Your task to perform on an android device: Is it going to rain today? Image 0: 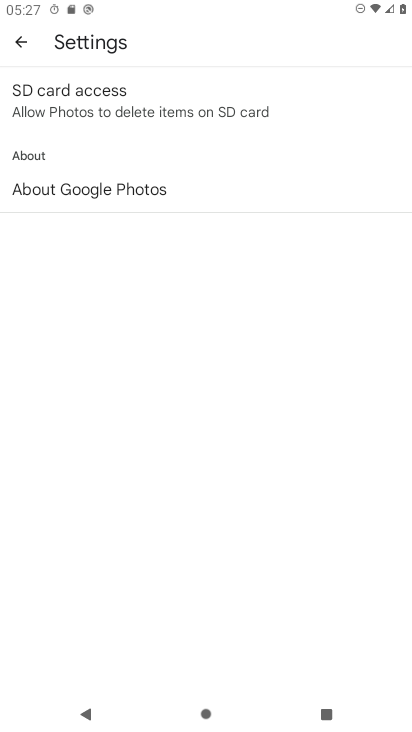
Step 0: press home button
Your task to perform on an android device: Is it going to rain today? Image 1: 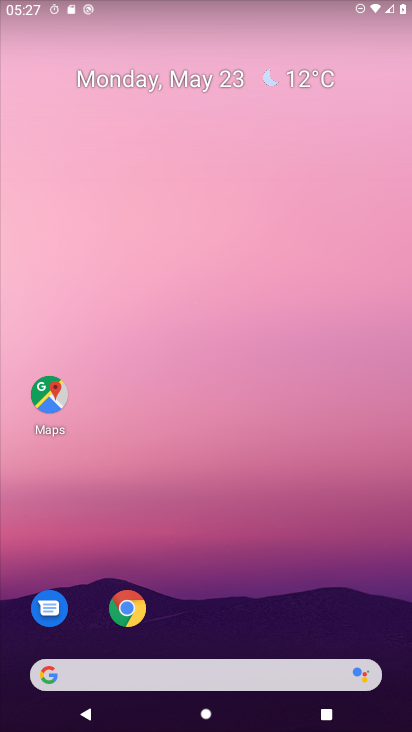
Step 1: click (295, 75)
Your task to perform on an android device: Is it going to rain today? Image 2: 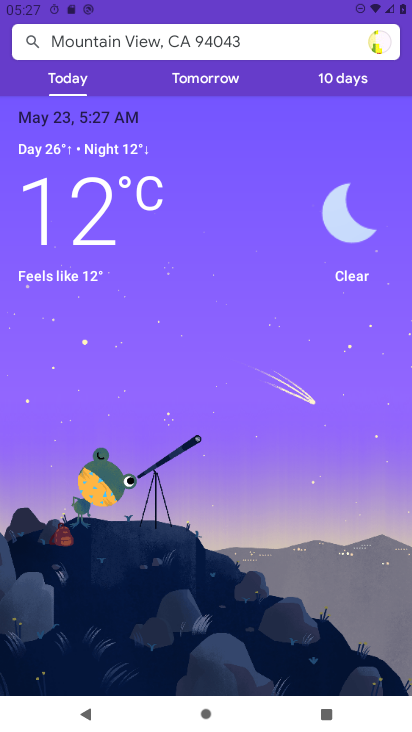
Step 2: task complete